Your task to perform on an android device: change the clock display to digital Image 0: 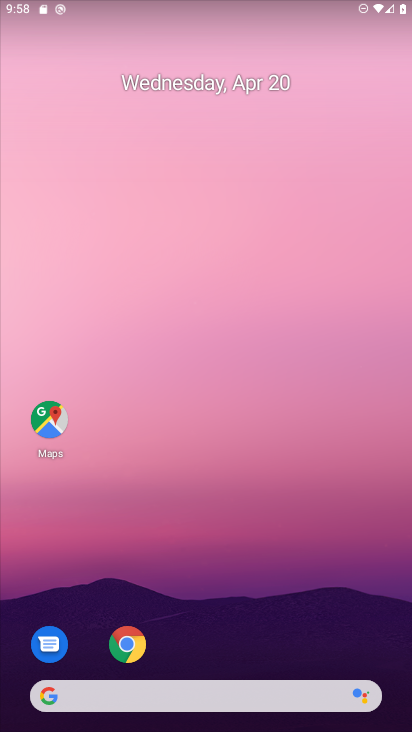
Step 0: drag from (349, 628) to (261, 65)
Your task to perform on an android device: change the clock display to digital Image 1: 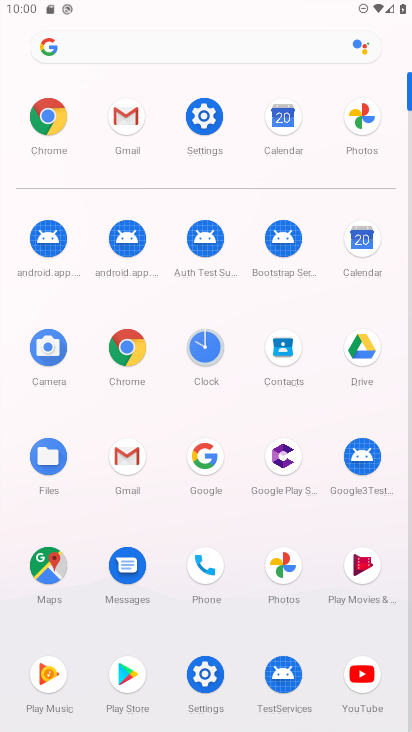
Step 1: click (205, 348)
Your task to perform on an android device: change the clock display to digital Image 2: 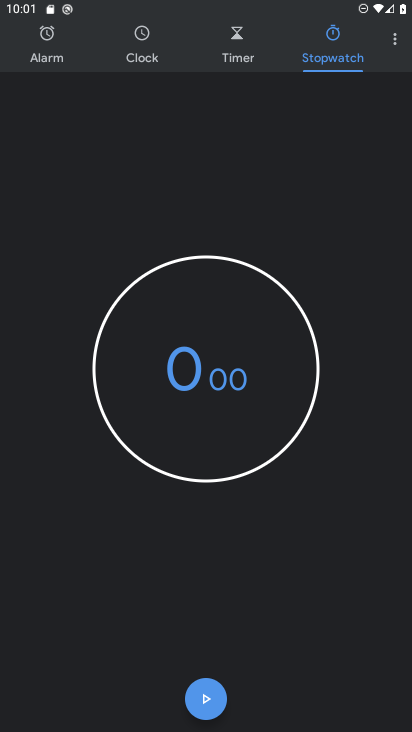
Step 2: click (393, 37)
Your task to perform on an android device: change the clock display to digital Image 3: 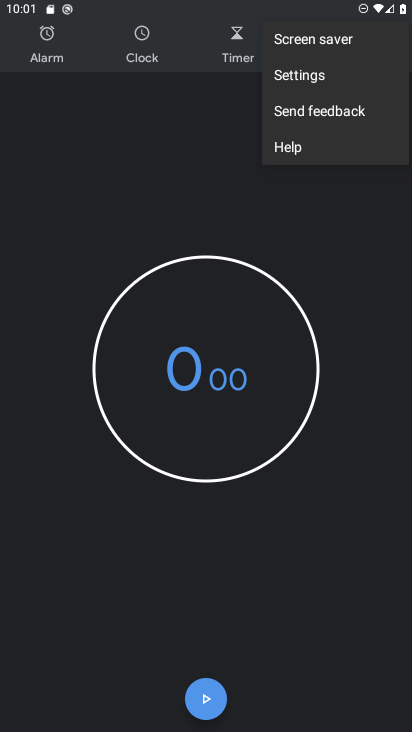
Step 3: click (334, 64)
Your task to perform on an android device: change the clock display to digital Image 4: 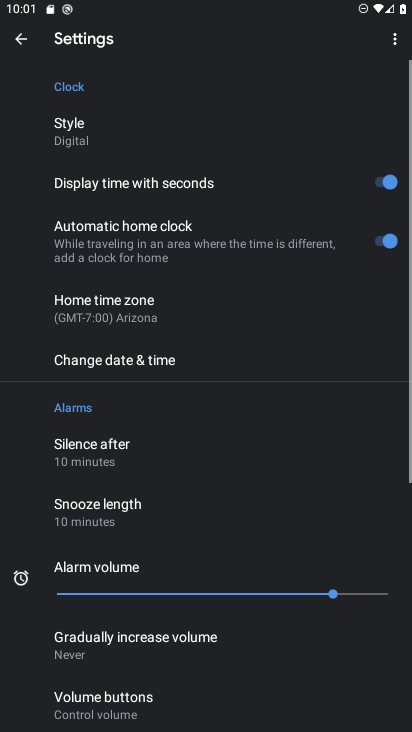
Step 4: click (149, 135)
Your task to perform on an android device: change the clock display to digital Image 5: 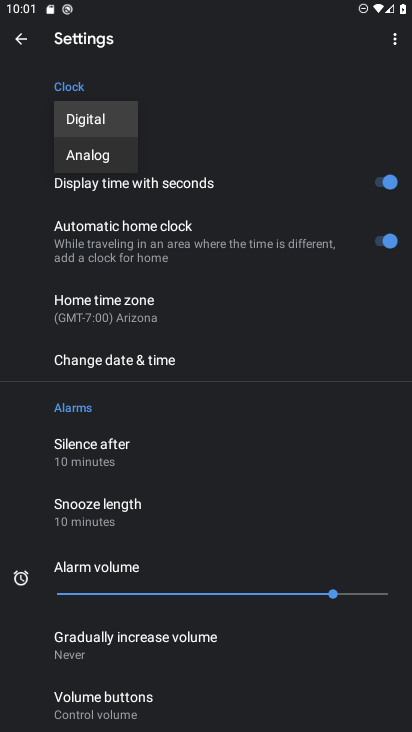
Step 5: click (113, 128)
Your task to perform on an android device: change the clock display to digital Image 6: 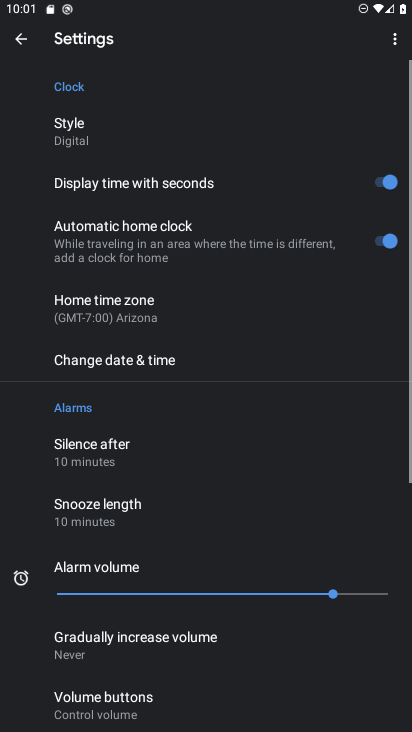
Step 6: task complete